Your task to perform on an android device: Open Chrome and go to the settings page Image 0: 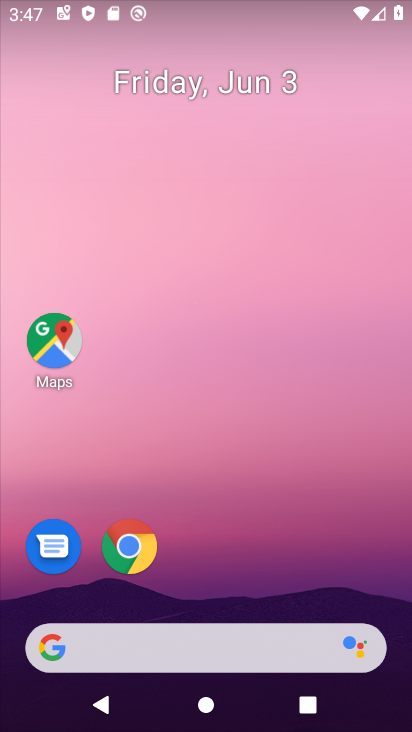
Step 0: click (139, 555)
Your task to perform on an android device: Open Chrome and go to the settings page Image 1: 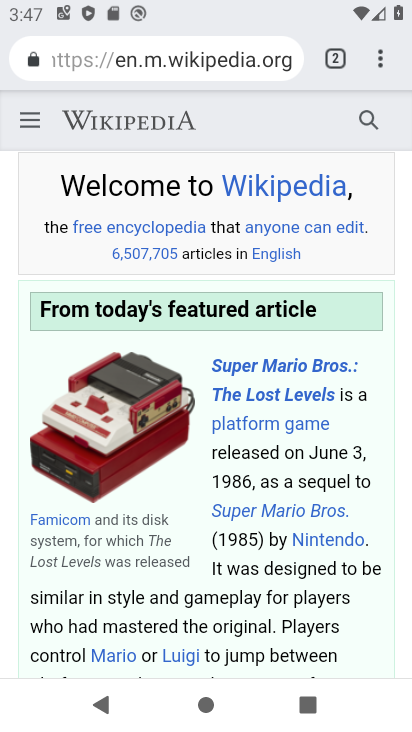
Step 1: click (375, 74)
Your task to perform on an android device: Open Chrome and go to the settings page Image 2: 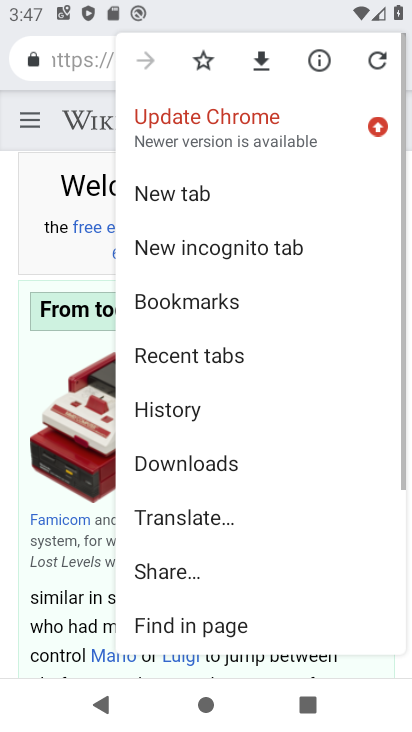
Step 2: drag from (262, 495) to (293, 238)
Your task to perform on an android device: Open Chrome and go to the settings page Image 3: 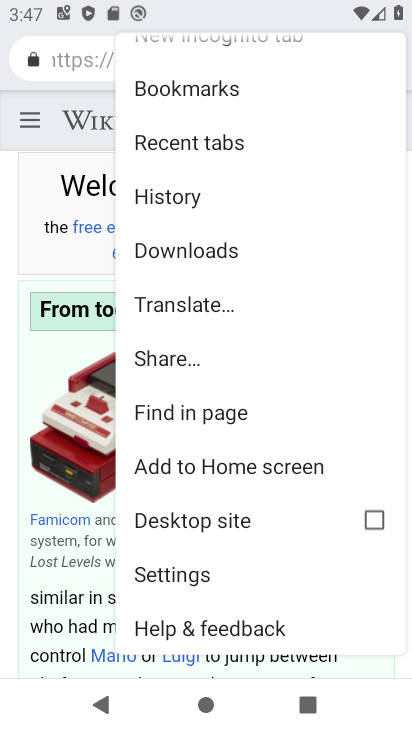
Step 3: click (190, 563)
Your task to perform on an android device: Open Chrome and go to the settings page Image 4: 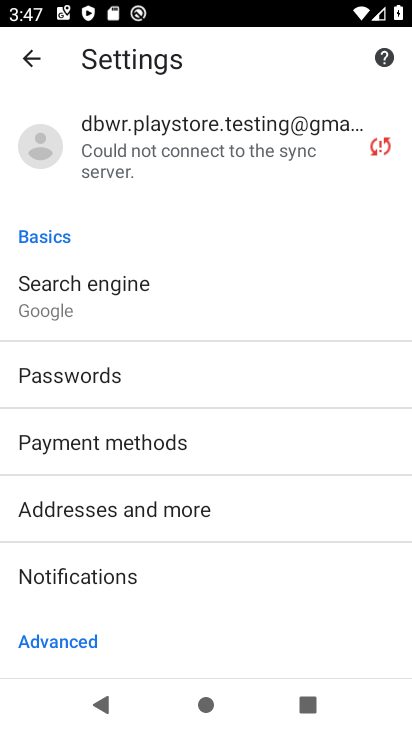
Step 4: task complete